Your task to perform on an android device: delete the emails in spam in the gmail app Image 0: 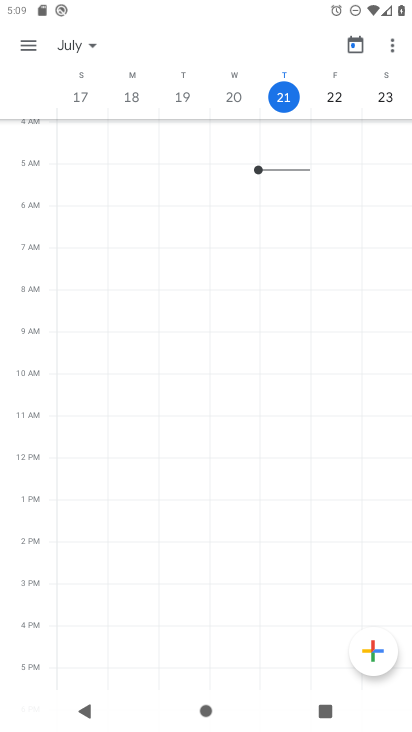
Step 0: press home button
Your task to perform on an android device: delete the emails in spam in the gmail app Image 1: 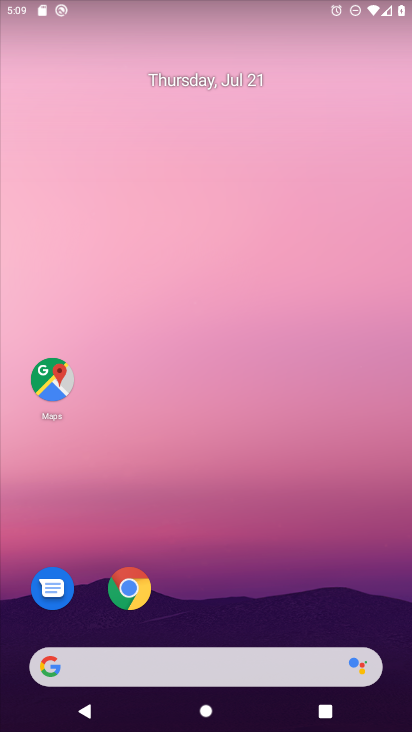
Step 1: drag from (333, 629) to (235, 172)
Your task to perform on an android device: delete the emails in spam in the gmail app Image 2: 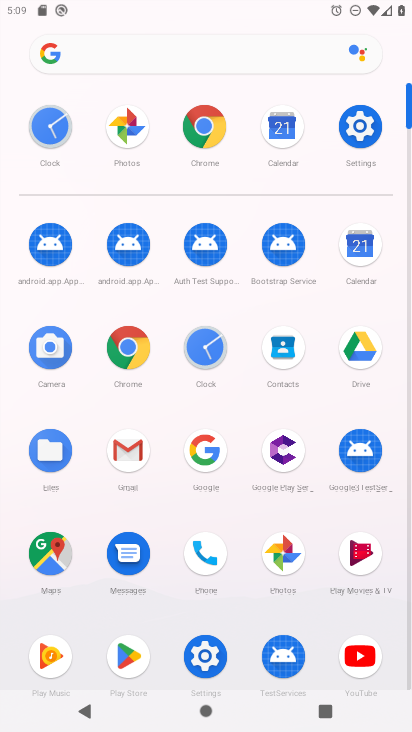
Step 2: click (132, 456)
Your task to perform on an android device: delete the emails in spam in the gmail app Image 3: 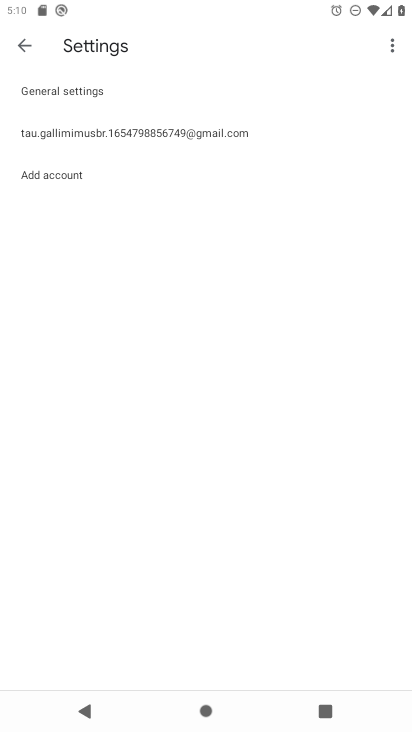
Step 3: click (29, 42)
Your task to perform on an android device: delete the emails in spam in the gmail app Image 4: 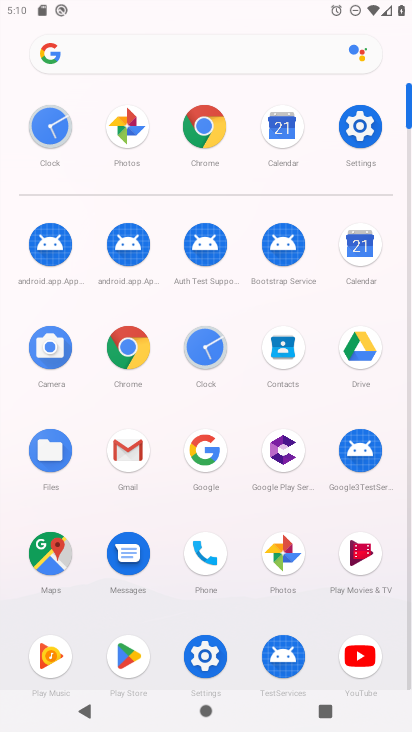
Step 4: click (116, 450)
Your task to perform on an android device: delete the emails in spam in the gmail app Image 5: 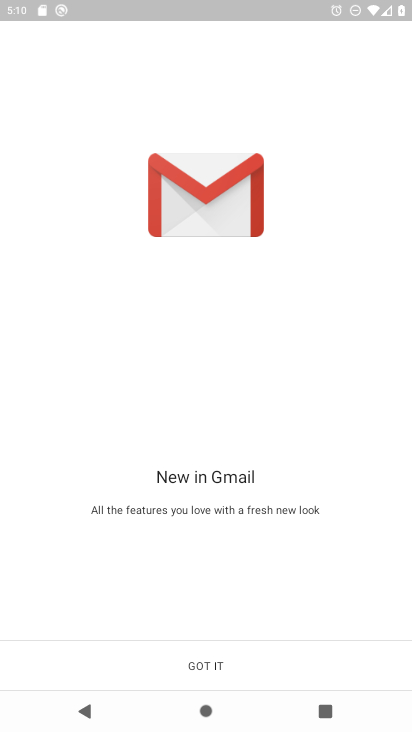
Step 5: click (207, 664)
Your task to perform on an android device: delete the emails in spam in the gmail app Image 6: 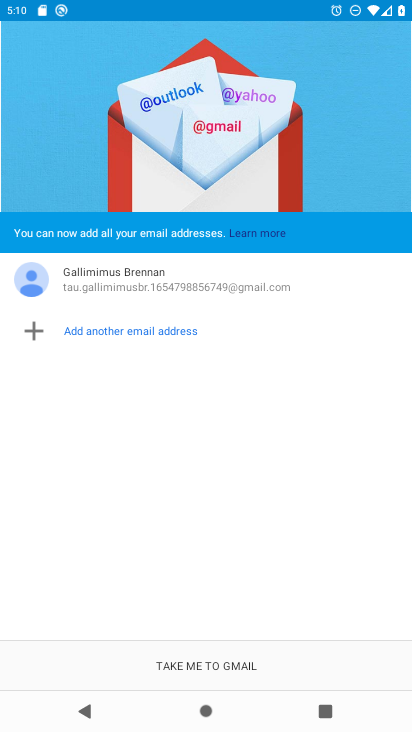
Step 6: click (207, 663)
Your task to perform on an android device: delete the emails in spam in the gmail app Image 7: 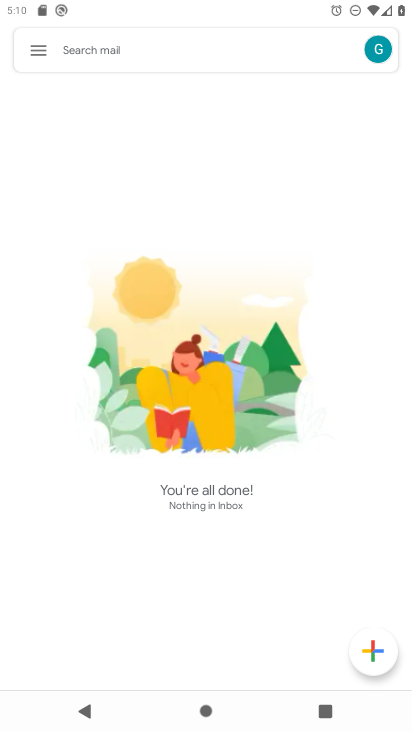
Step 7: click (34, 52)
Your task to perform on an android device: delete the emails in spam in the gmail app Image 8: 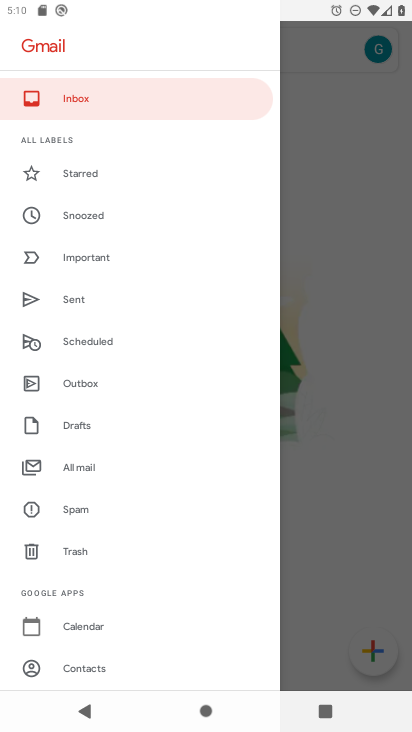
Step 8: click (109, 504)
Your task to perform on an android device: delete the emails in spam in the gmail app Image 9: 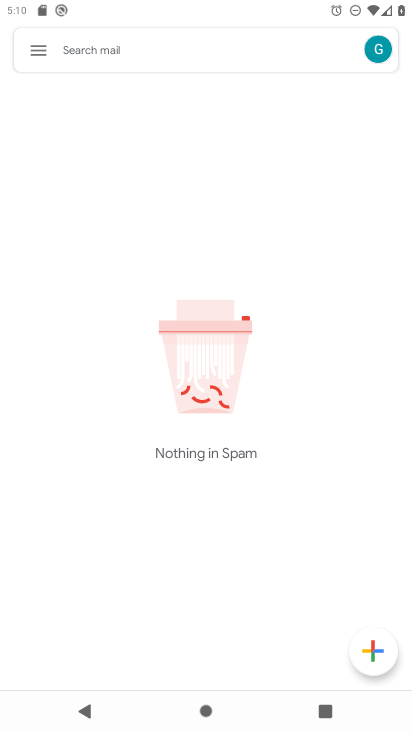
Step 9: task complete